Your task to perform on an android device: open app "Adobe Acrobat Reader: Edit PDF" (install if not already installed) and go to login screen Image 0: 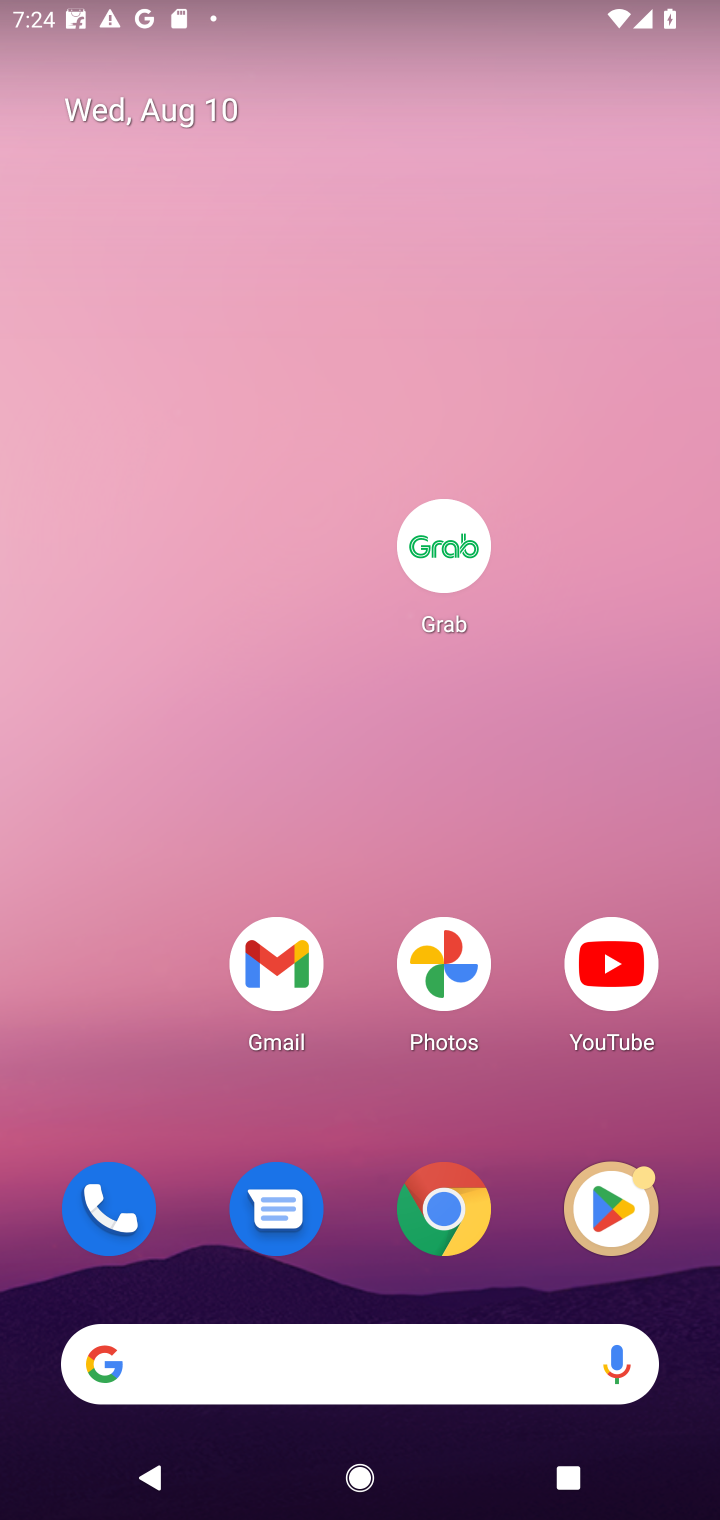
Step 0: drag from (372, 1284) to (379, 126)
Your task to perform on an android device: open app "Adobe Acrobat Reader: Edit PDF" (install if not already installed) and go to login screen Image 1: 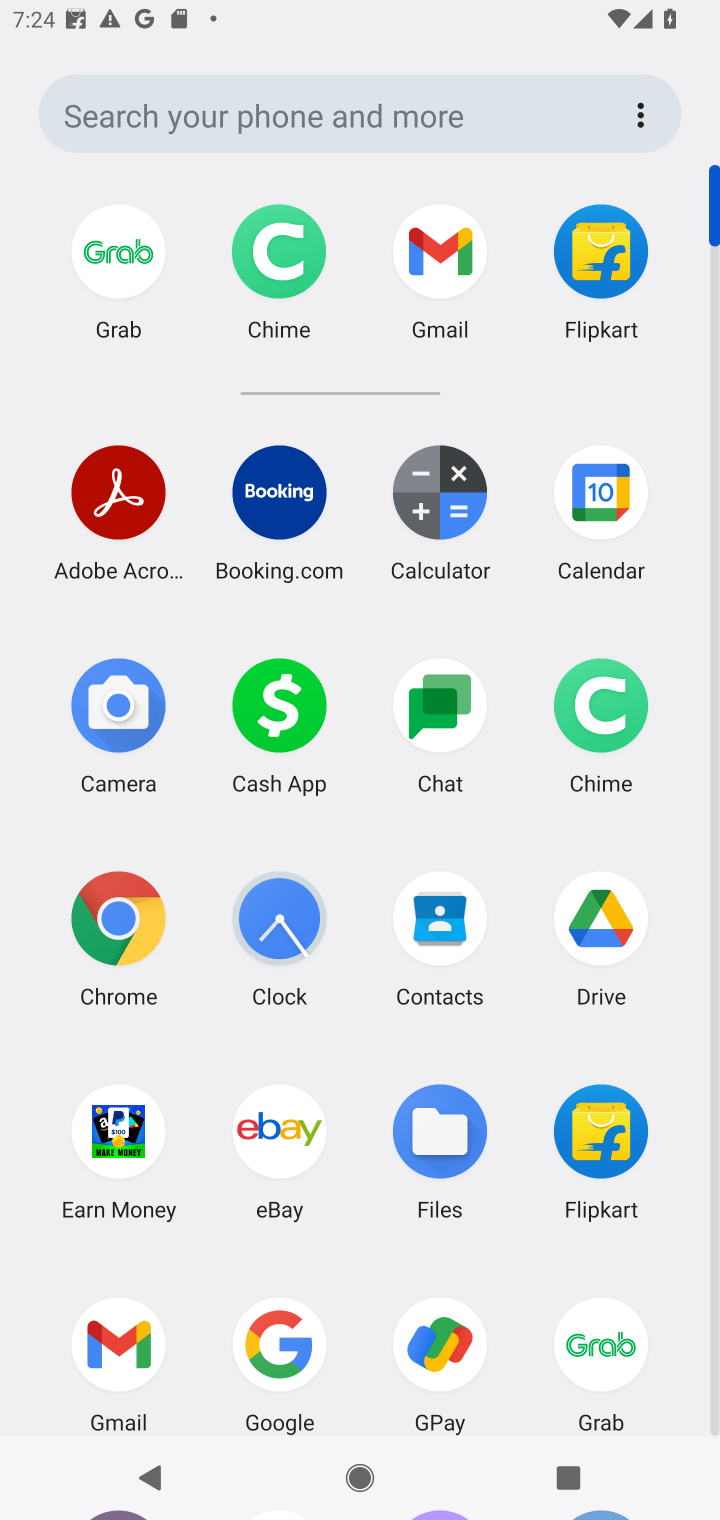
Step 1: click (68, 505)
Your task to perform on an android device: open app "Adobe Acrobat Reader: Edit PDF" (install if not already installed) and go to login screen Image 2: 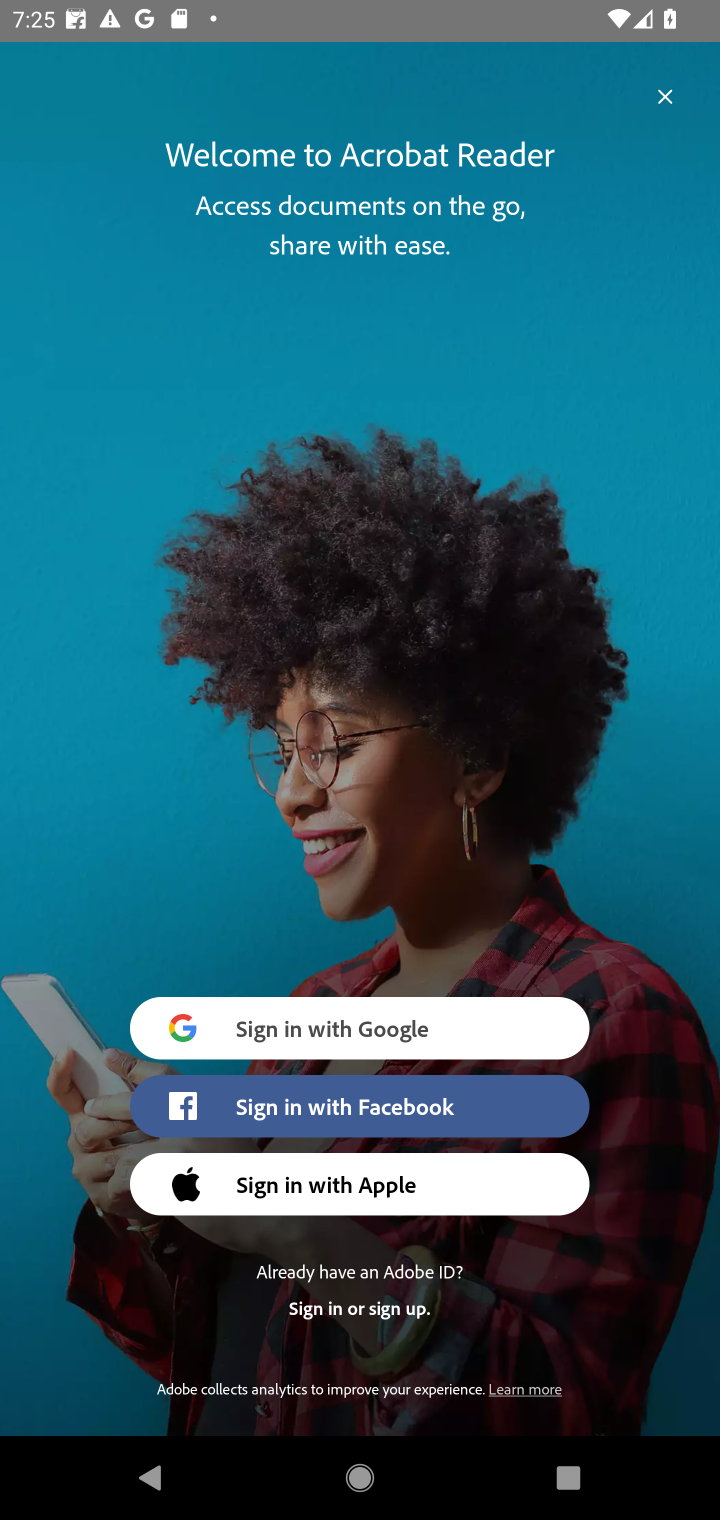
Step 2: task complete